Your task to perform on an android device: see sites visited before in the chrome app Image 0: 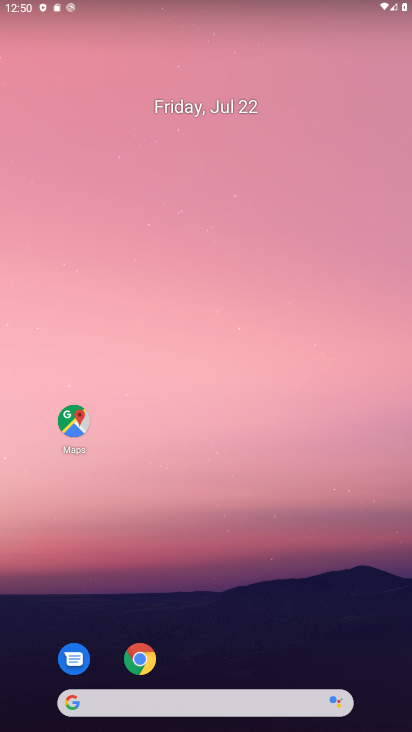
Step 0: click (409, 460)
Your task to perform on an android device: see sites visited before in the chrome app Image 1: 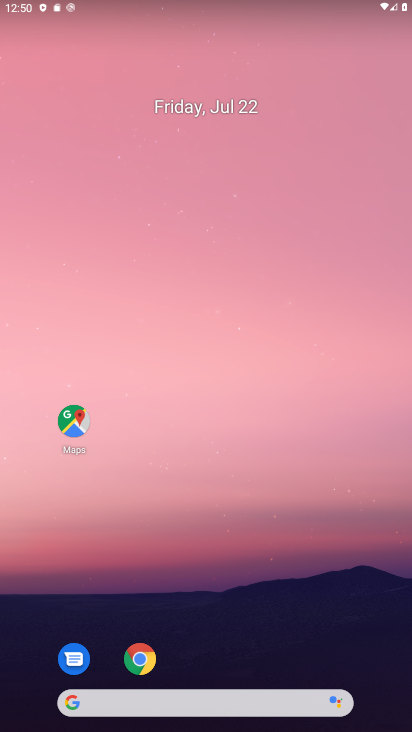
Step 1: click (158, 670)
Your task to perform on an android device: see sites visited before in the chrome app Image 2: 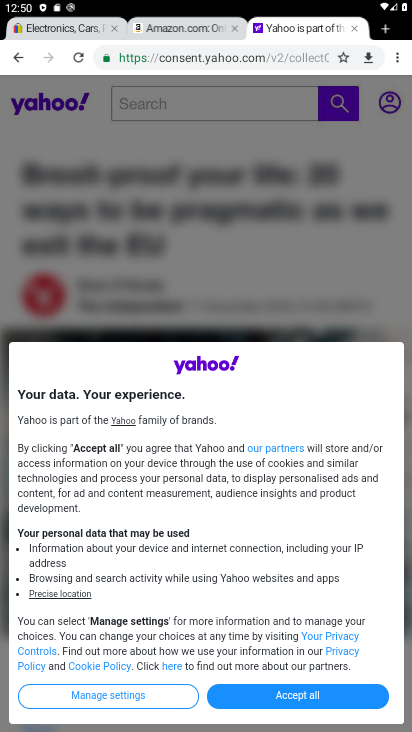
Step 2: click (301, 695)
Your task to perform on an android device: see sites visited before in the chrome app Image 3: 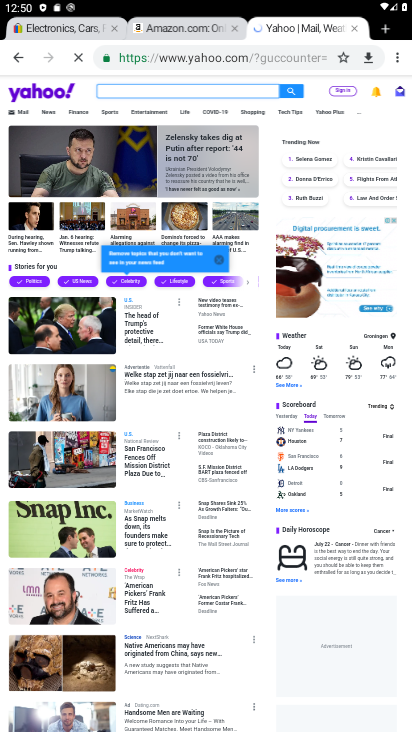
Step 3: click (393, 64)
Your task to perform on an android device: see sites visited before in the chrome app Image 4: 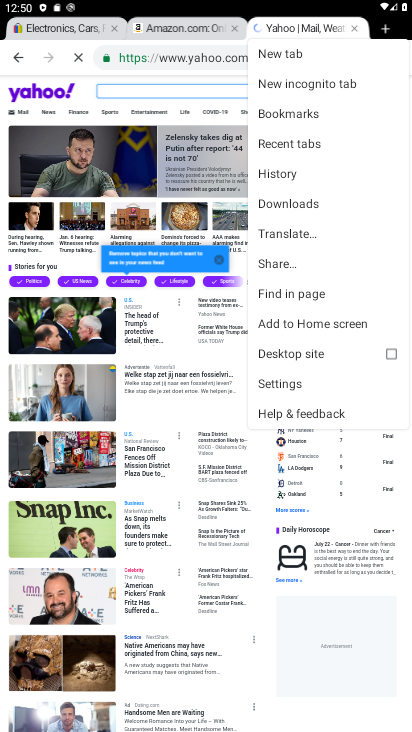
Step 4: click (290, 135)
Your task to perform on an android device: see sites visited before in the chrome app Image 5: 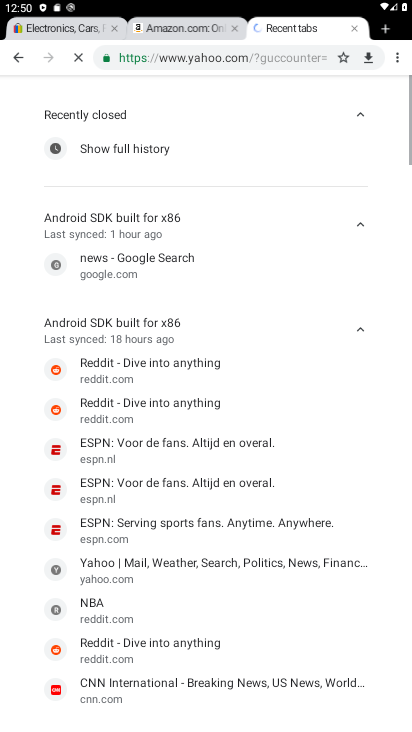
Step 5: task complete